Your task to perform on an android device: Go to accessibility settings Image 0: 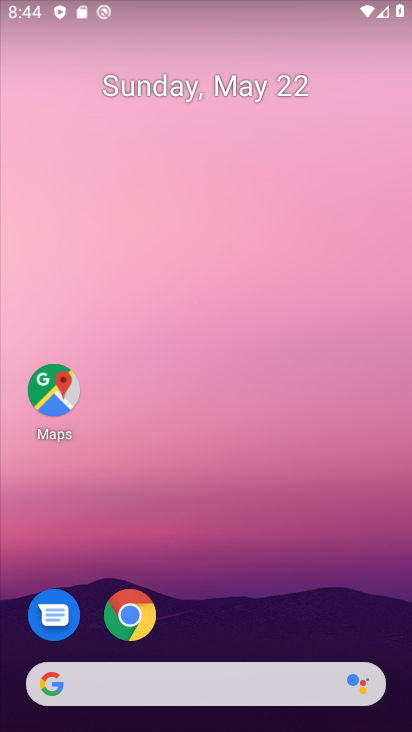
Step 0: drag from (221, 478) to (275, 83)
Your task to perform on an android device: Go to accessibility settings Image 1: 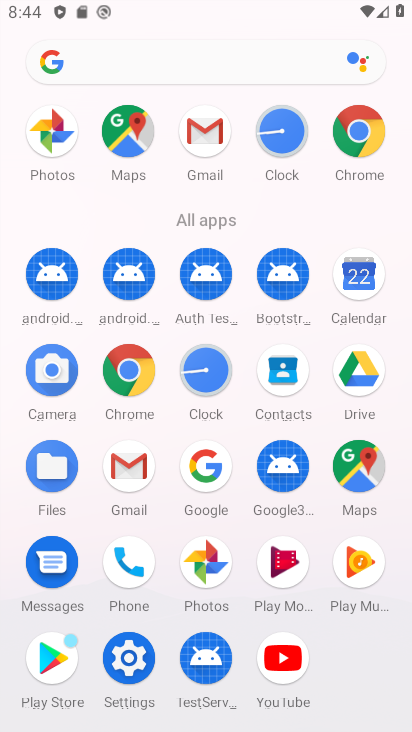
Step 1: click (129, 654)
Your task to perform on an android device: Go to accessibility settings Image 2: 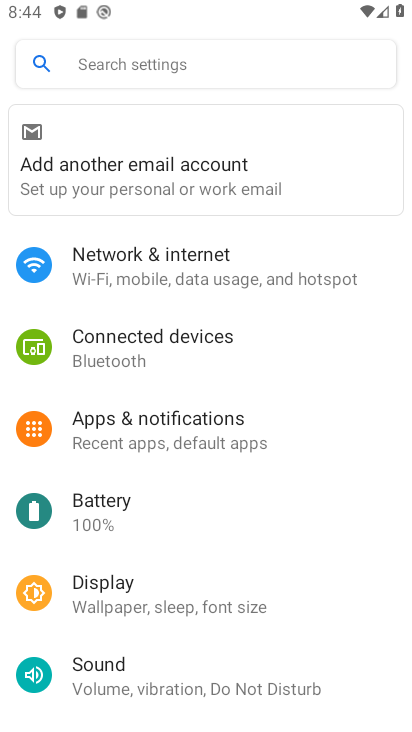
Step 2: drag from (185, 662) to (221, 261)
Your task to perform on an android device: Go to accessibility settings Image 3: 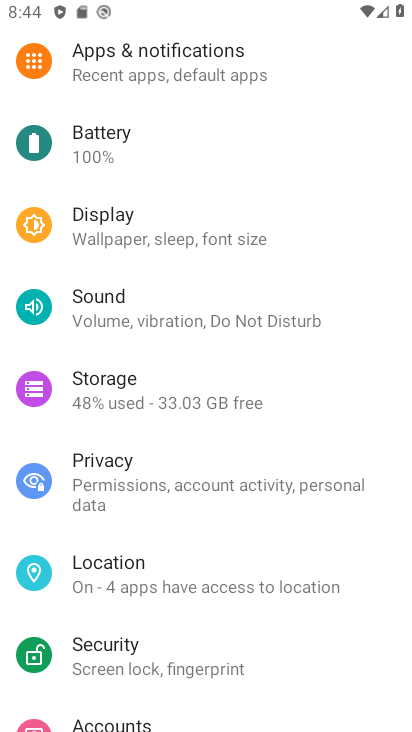
Step 3: drag from (210, 697) to (207, 276)
Your task to perform on an android device: Go to accessibility settings Image 4: 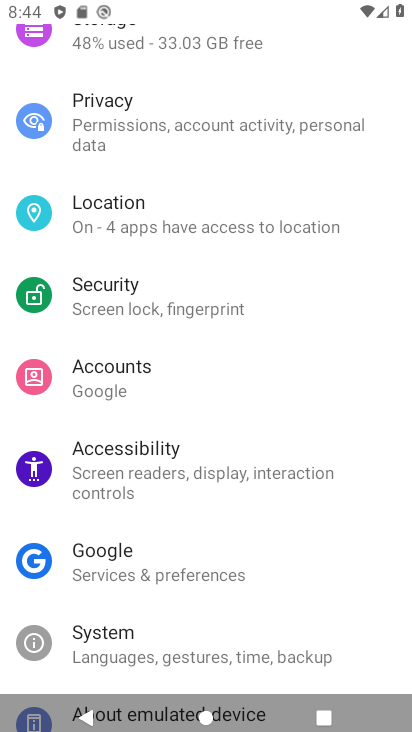
Step 4: click (183, 476)
Your task to perform on an android device: Go to accessibility settings Image 5: 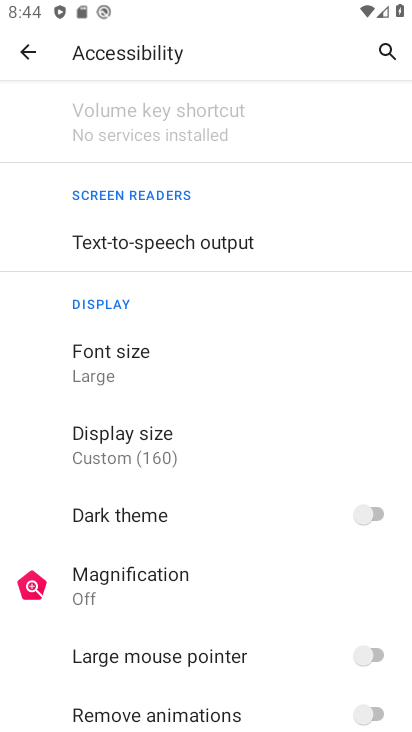
Step 5: task complete